Your task to perform on an android device: Go to ESPN.com Image 0: 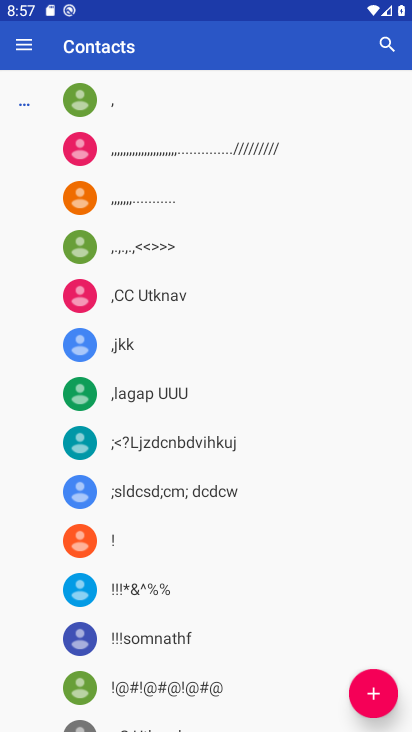
Step 0: press home button
Your task to perform on an android device: Go to ESPN.com Image 1: 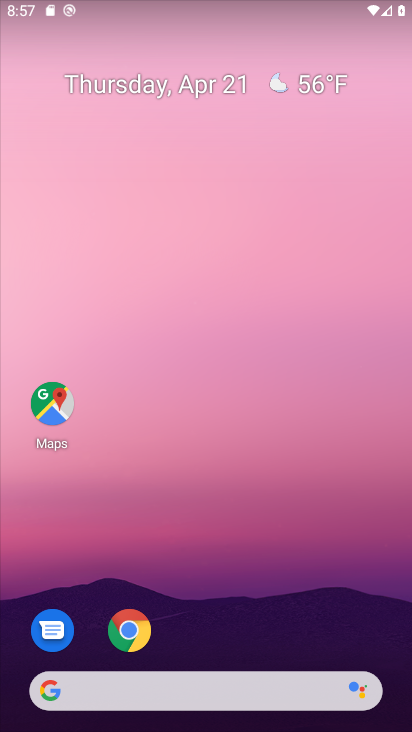
Step 1: click (129, 619)
Your task to perform on an android device: Go to ESPN.com Image 2: 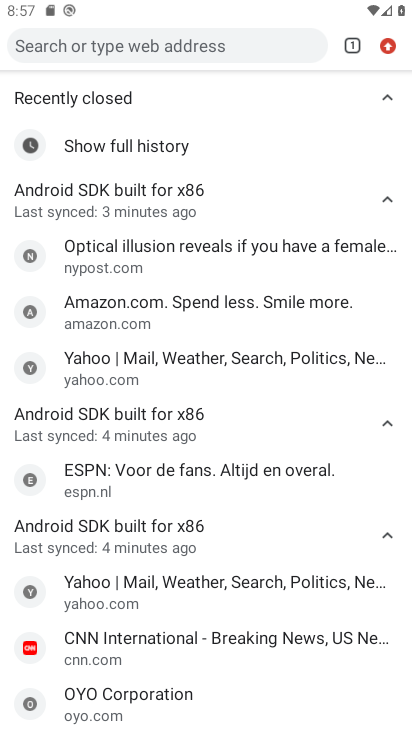
Step 2: click (169, 46)
Your task to perform on an android device: Go to ESPN.com Image 3: 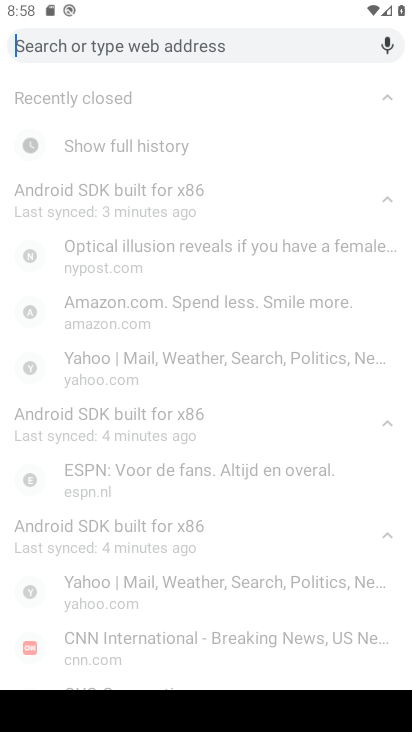
Step 3: type "ESPN.com"
Your task to perform on an android device: Go to ESPN.com Image 4: 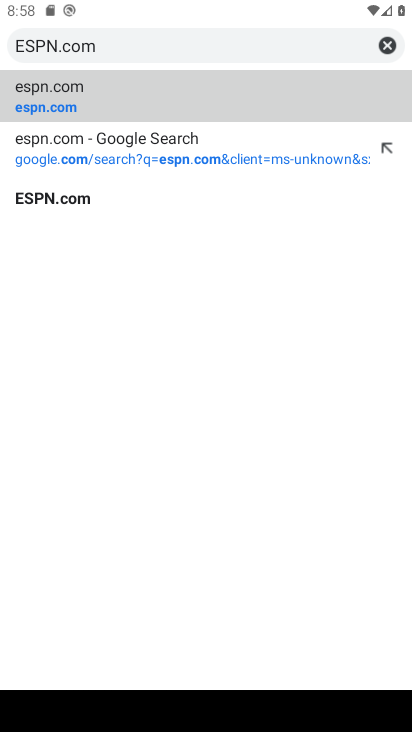
Step 4: click (131, 89)
Your task to perform on an android device: Go to ESPN.com Image 5: 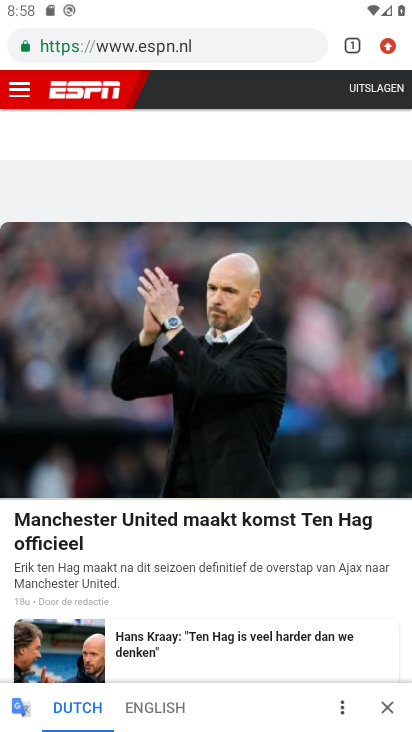
Step 5: task complete